Your task to perform on an android device: read, delete, or share a saved page in the chrome app Image 0: 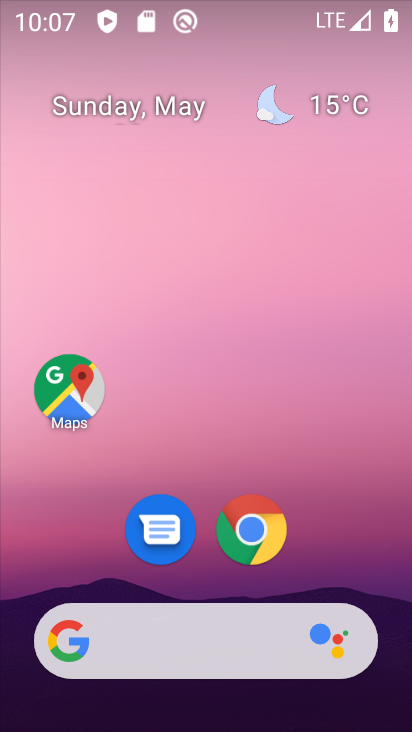
Step 0: drag from (281, 605) to (382, 12)
Your task to perform on an android device: read, delete, or share a saved page in the chrome app Image 1: 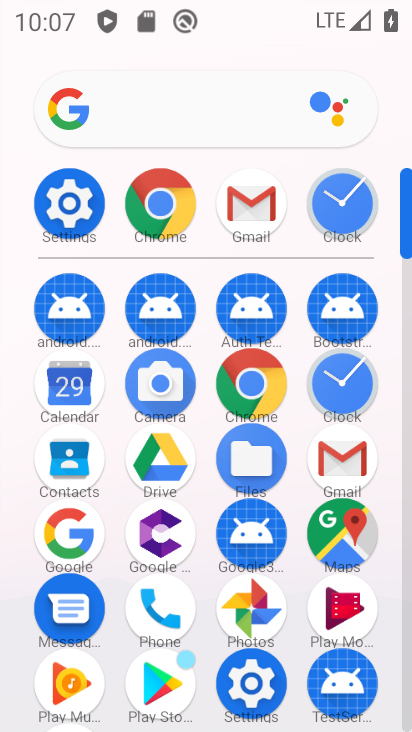
Step 1: click (268, 373)
Your task to perform on an android device: read, delete, or share a saved page in the chrome app Image 2: 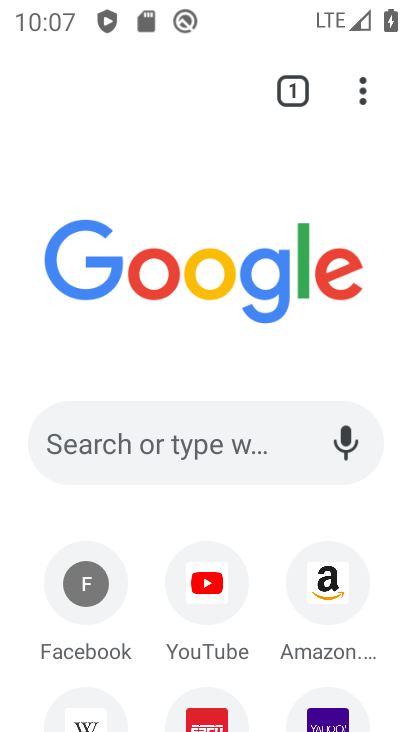
Step 2: task complete